Your task to perform on an android device: snooze an email in the gmail app Image 0: 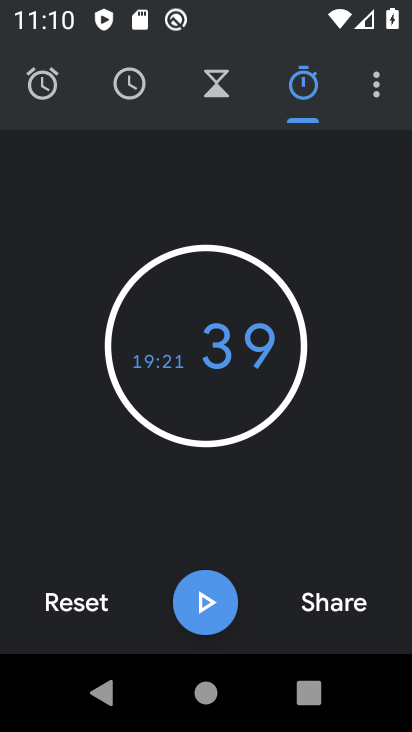
Step 0: press back button
Your task to perform on an android device: snooze an email in the gmail app Image 1: 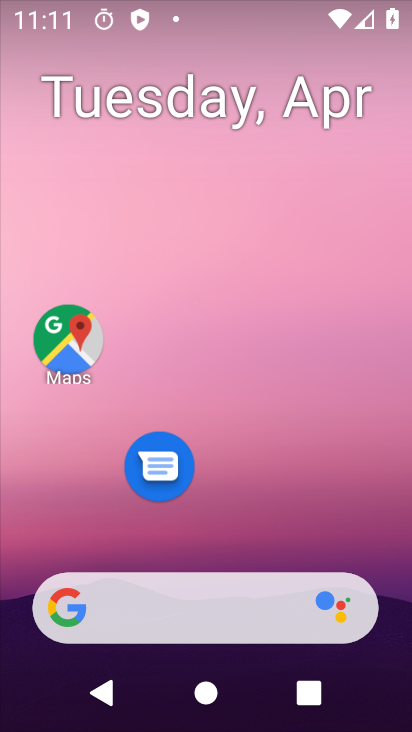
Step 1: drag from (337, 521) to (294, 119)
Your task to perform on an android device: snooze an email in the gmail app Image 2: 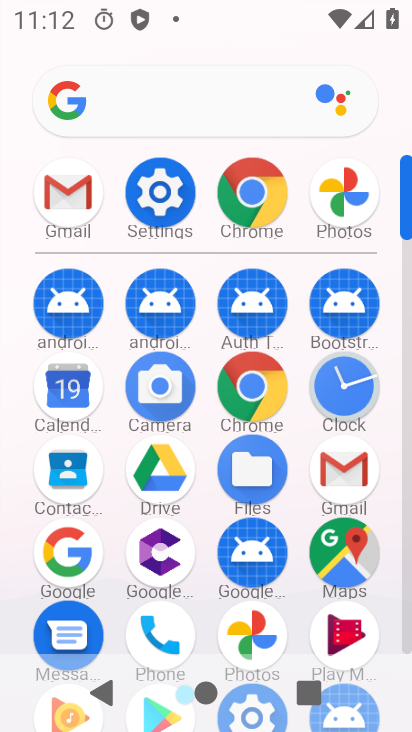
Step 2: click (341, 501)
Your task to perform on an android device: snooze an email in the gmail app Image 3: 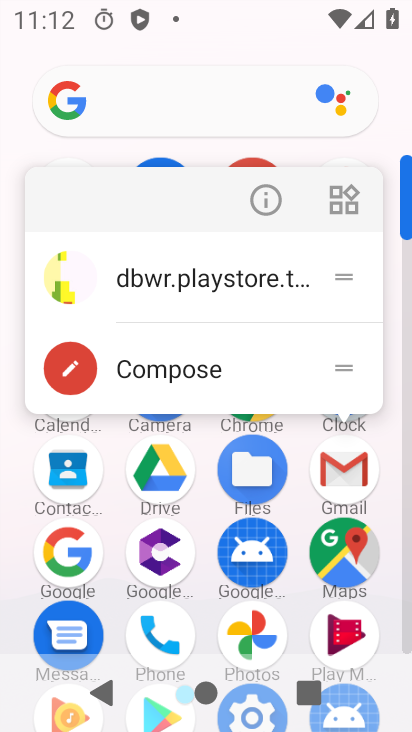
Step 3: click (353, 493)
Your task to perform on an android device: snooze an email in the gmail app Image 4: 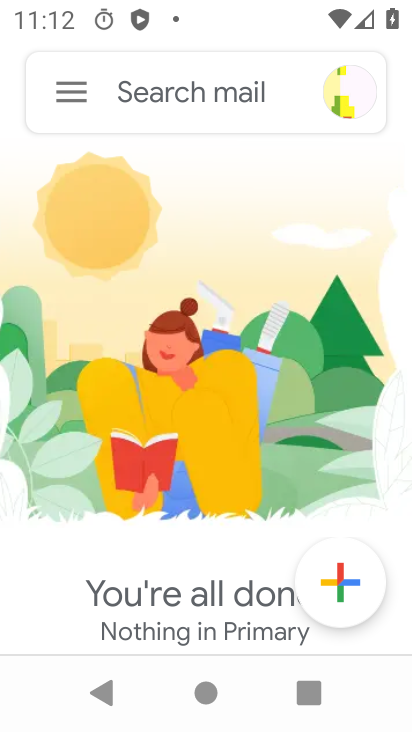
Step 4: click (75, 86)
Your task to perform on an android device: snooze an email in the gmail app Image 5: 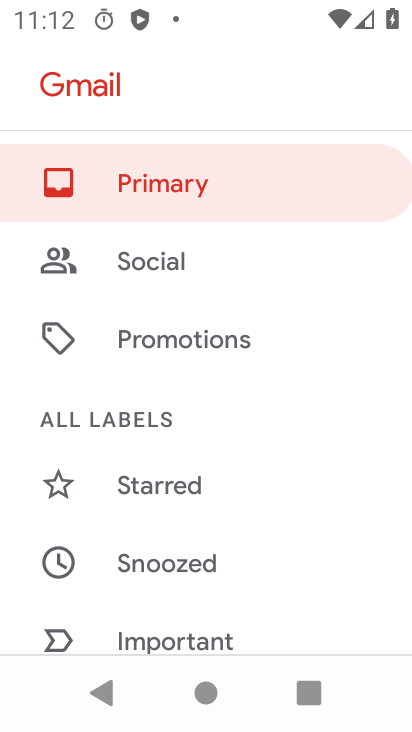
Step 5: drag from (140, 529) to (126, 267)
Your task to perform on an android device: snooze an email in the gmail app Image 6: 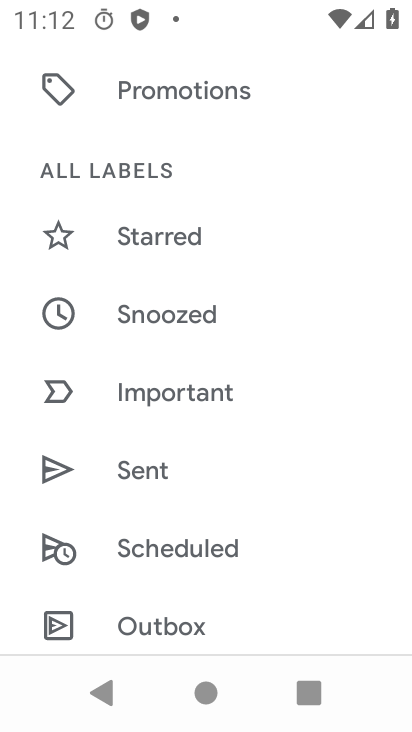
Step 6: drag from (152, 582) to (177, 251)
Your task to perform on an android device: snooze an email in the gmail app Image 7: 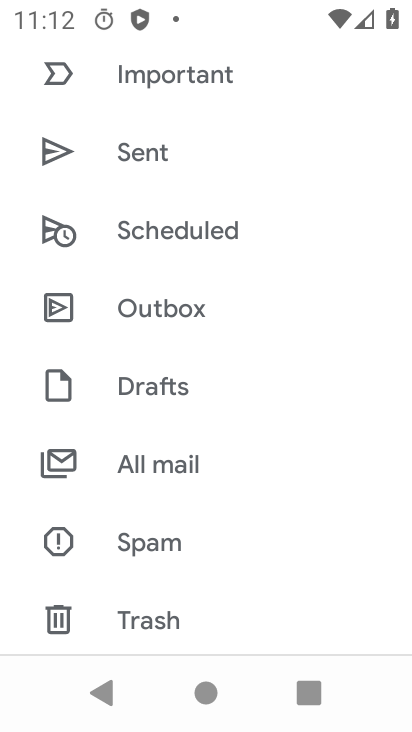
Step 7: click (200, 473)
Your task to perform on an android device: snooze an email in the gmail app Image 8: 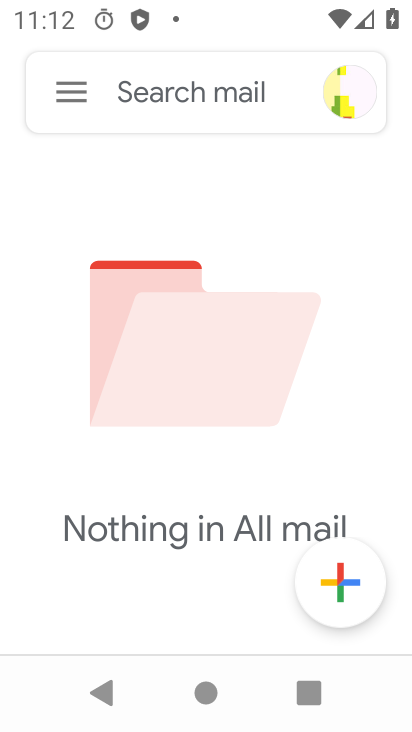
Step 8: task complete